Your task to perform on an android device: turn off wifi Image 0: 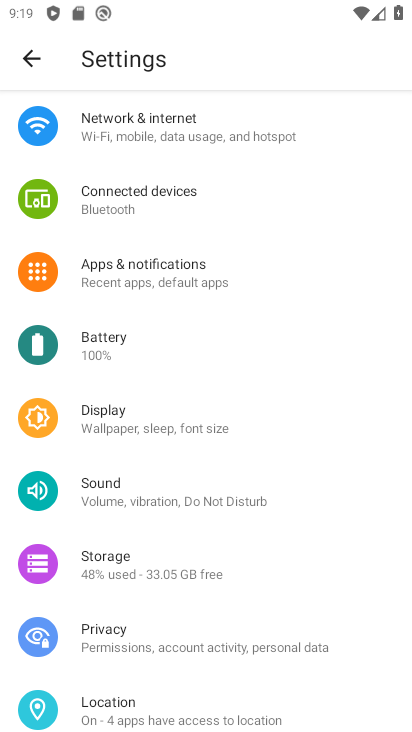
Step 0: click (278, 131)
Your task to perform on an android device: turn off wifi Image 1: 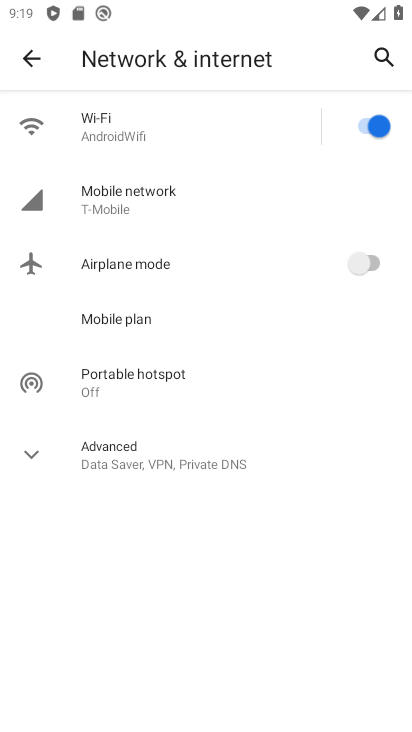
Step 1: click (379, 133)
Your task to perform on an android device: turn off wifi Image 2: 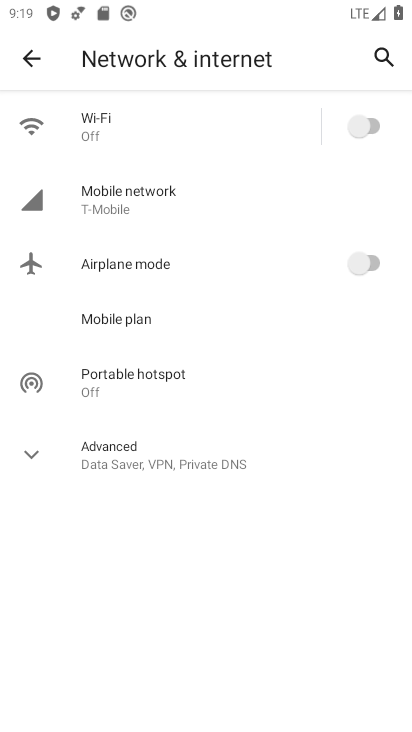
Step 2: task complete